Your task to perform on an android device: toggle notifications settings in the gmail app Image 0: 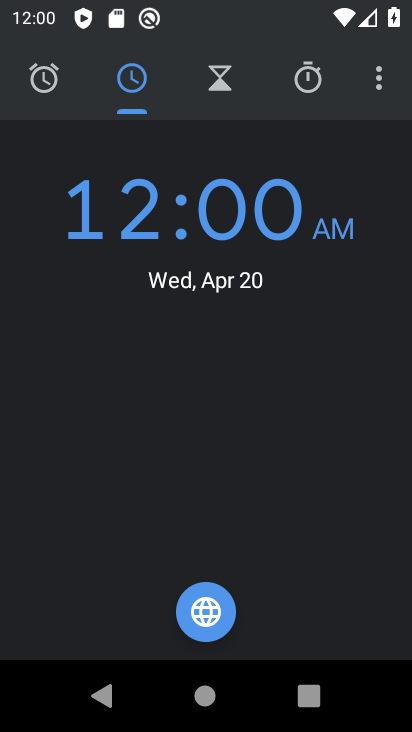
Step 0: press home button
Your task to perform on an android device: toggle notifications settings in the gmail app Image 1: 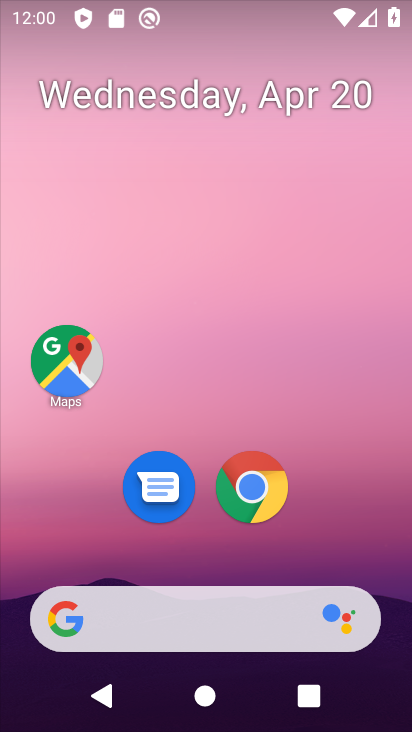
Step 1: drag from (302, 367) to (210, 58)
Your task to perform on an android device: toggle notifications settings in the gmail app Image 2: 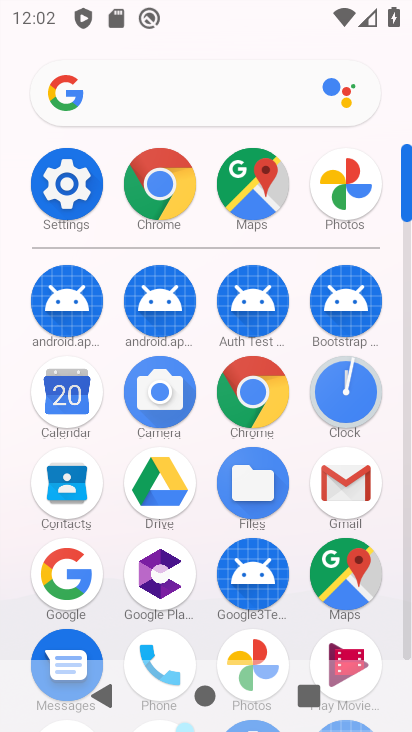
Step 2: click (339, 487)
Your task to perform on an android device: toggle notifications settings in the gmail app Image 3: 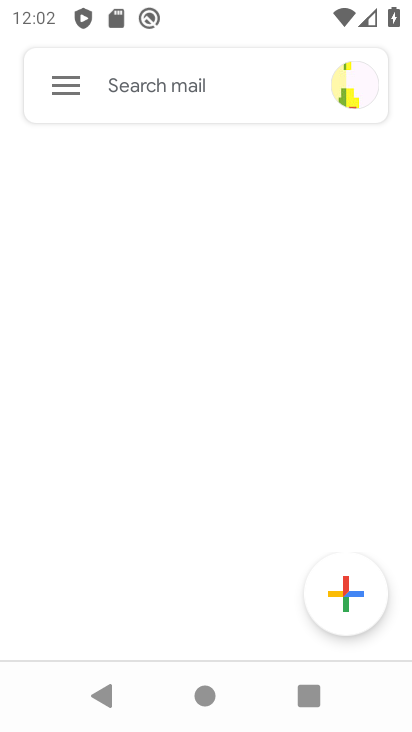
Step 3: click (65, 63)
Your task to perform on an android device: toggle notifications settings in the gmail app Image 4: 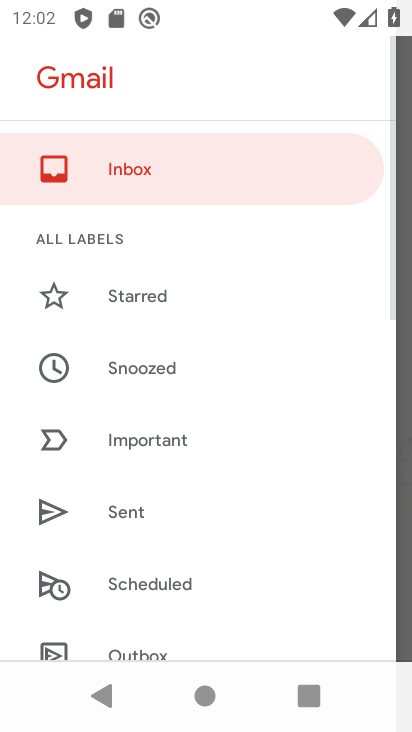
Step 4: drag from (106, 593) to (235, 97)
Your task to perform on an android device: toggle notifications settings in the gmail app Image 5: 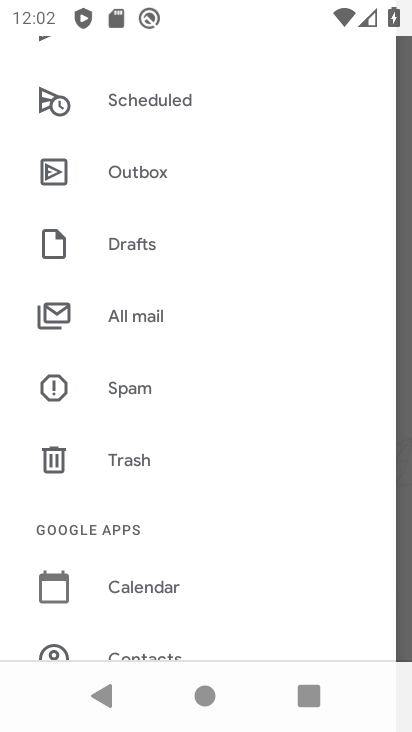
Step 5: drag from (135, 601) to (218, 161)
Your task to perform on an android device: toggle notifications settings in the gmail app Image 6: 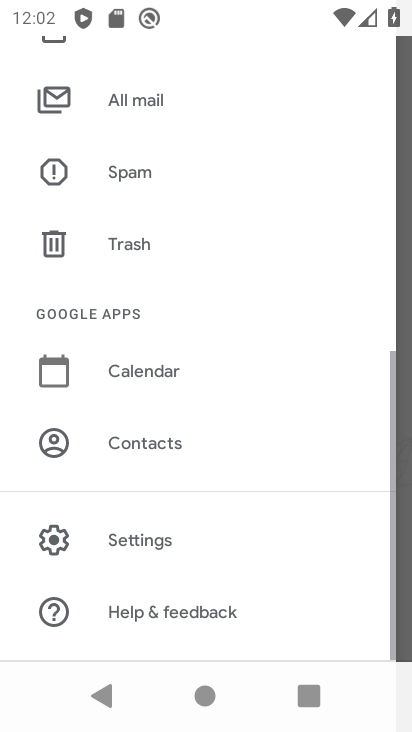
Step 6: click (140, 542)
Your task to perform on an android device: toggle notifications settings in the gmail app Image 7: 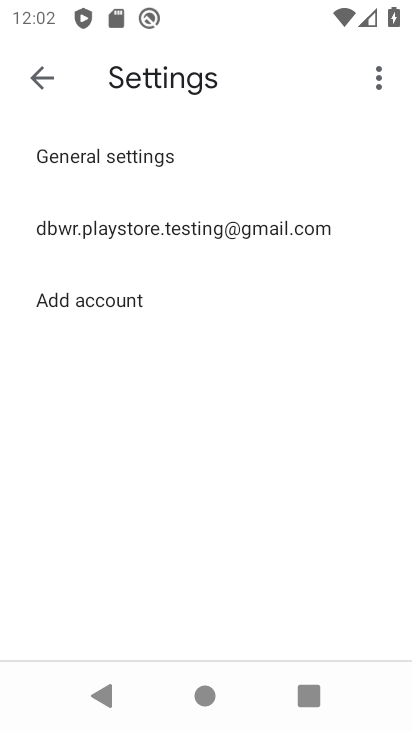
Step 7: click (151, 221)
Your task to perform on an android device: toggle notifications settings in the gmail app Image 8: 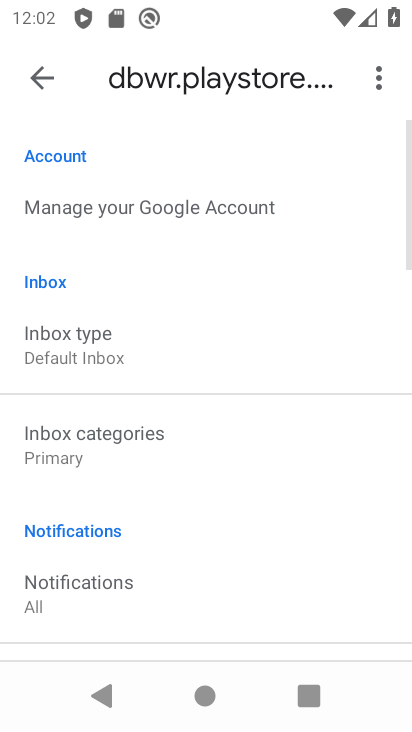
Step 8: click (118, 614)
Your task to perform on an android device: toggle notifications settings in the gmail app Image 9: 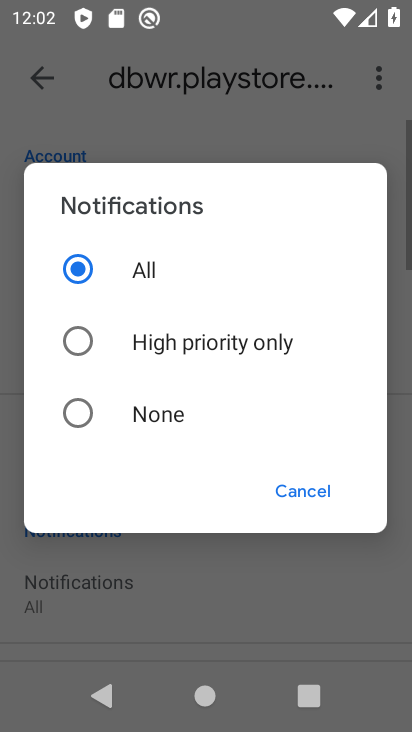
Step 9: click (152, 342)
Your task to perform on an android device: toggle notifications settings in the gmail app Image 10: 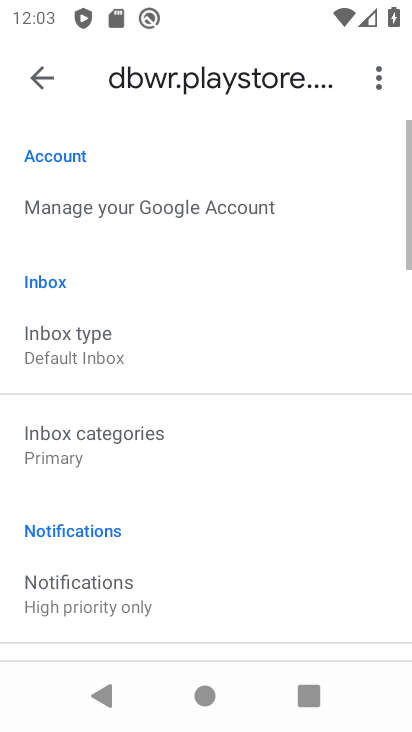
Step 10: task complete